Your task to perform on an android device: What's on my calendar today? Image 0: 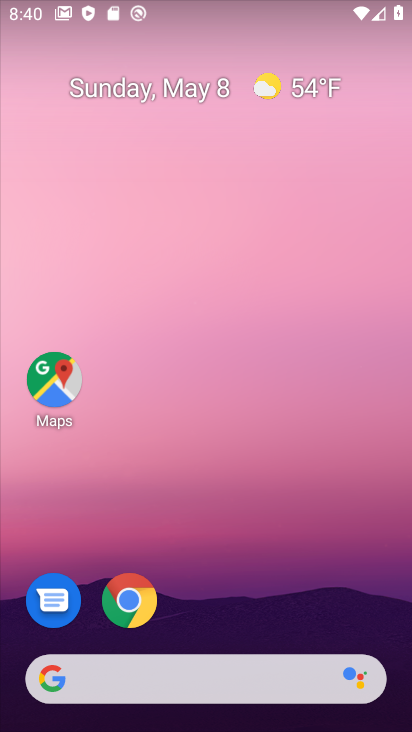
Step 0: click (183, 102)
Your task to perform on an android device: What's on my calendar today? Image 1: 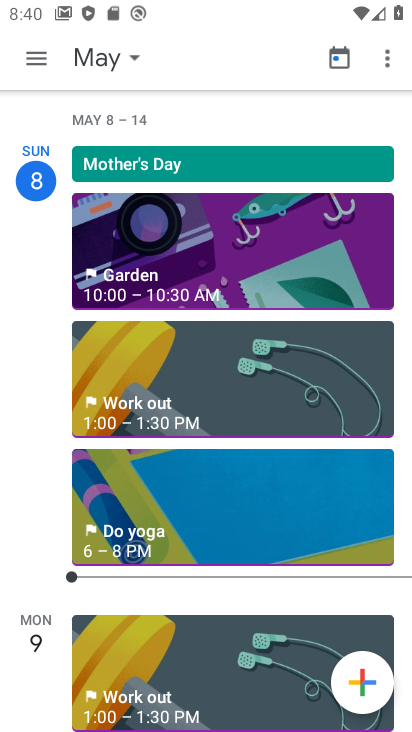
Step 1: task complete